Your task to perform on an android device: Go to display settings Image 0: 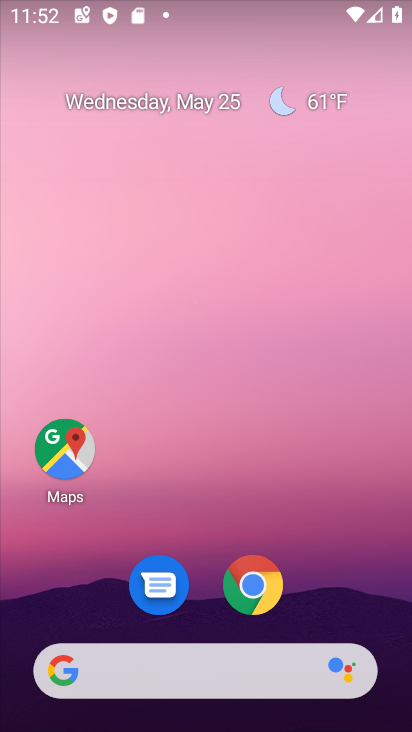
Step 0: drag from (233, 500) to (265, 49)
Your task to perform on an android device: Go to display settings Image 1: 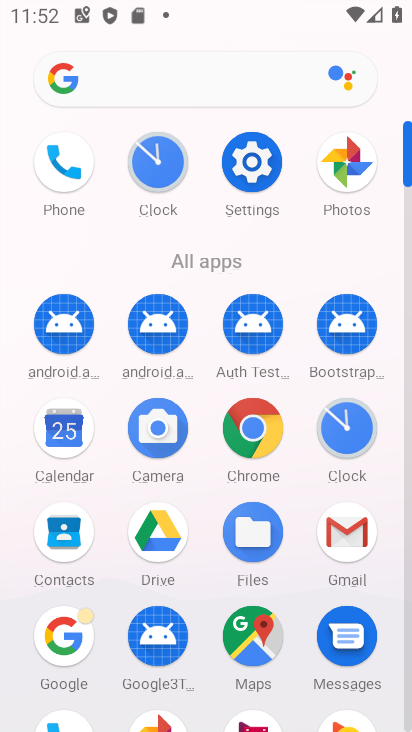
Step 1: click (252, 157)
Your task to perform on an android device: Go to display settings Image 2: 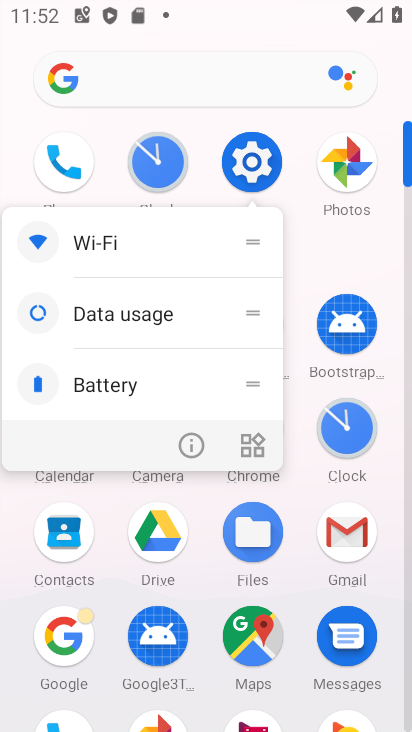
Step 2: click (252, 157)
Your task to perform on an android device: Go to display settings Image 3: 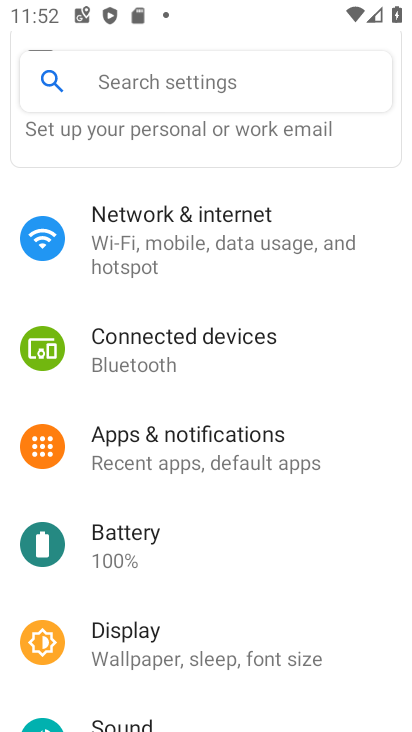
Step 3: click (226, 639)
Your task to perform on an android device: Go to display settings Image 4: 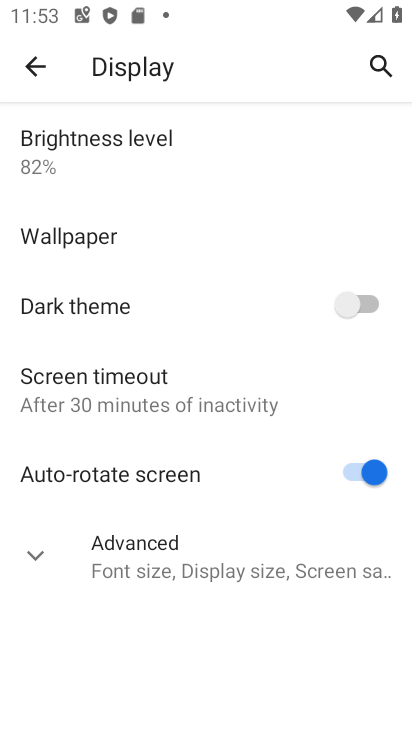
Step 4: task complete